Your task to perform on an android device: toggle notifications settings in the gmail app Image 0: 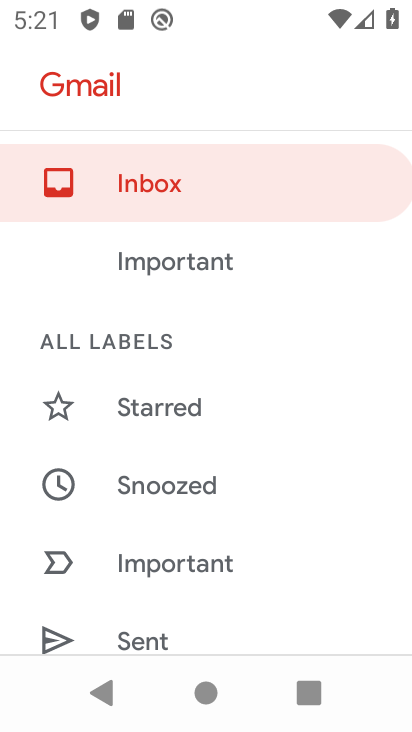
Step 0: press home button
Your task to perform on an android device: toggle notifications settings in the gmail app Image 1: 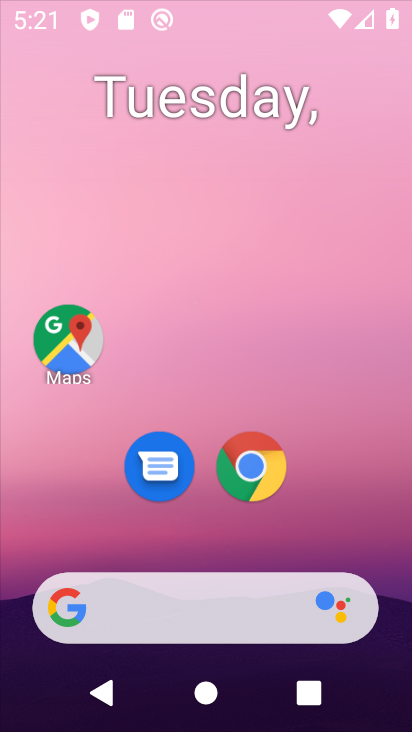
Step 1: drag from (388, 634) to (394, 57)
Your task to perform on an android device: toggle notifications settings in the gmail app Image 2: 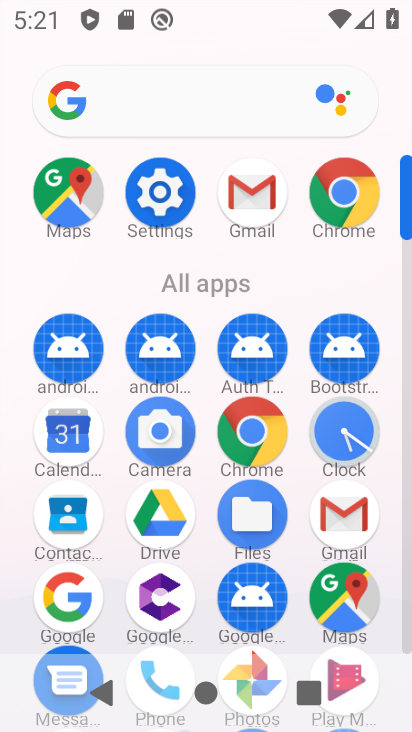
Step 2: click (336, 535)
Your task to perform on an android device: toggle notifications settings in the gmail app Image 3: 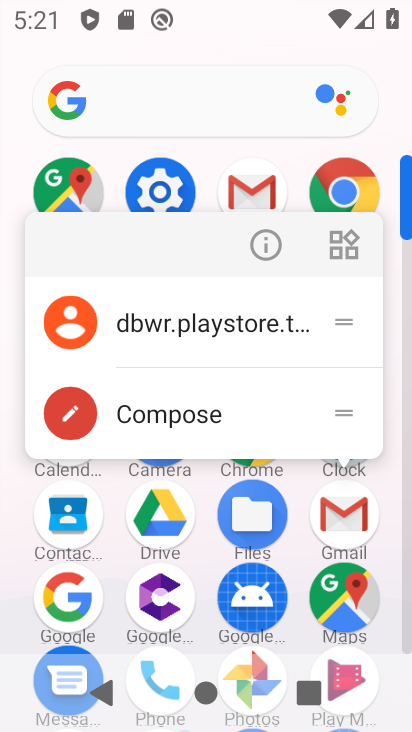
Step 3: click (260, 252)
Your task to perform on an android device: toggle notifications settings in the gmail app Image 4: 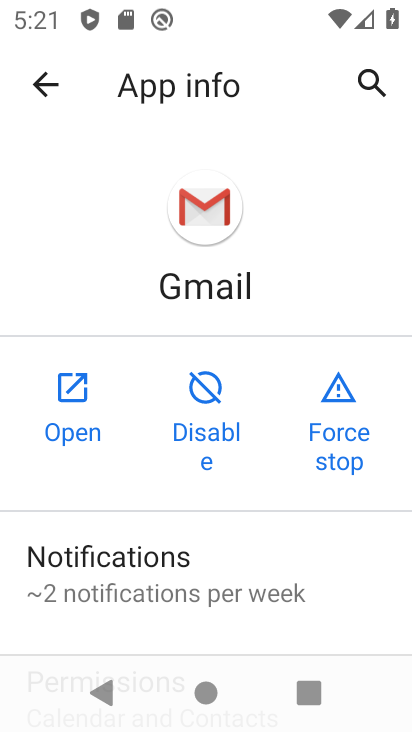
Step 4: click (134, 530)
Your task to perform on an android device: toggle notifications settings in the gmail app Image 5: 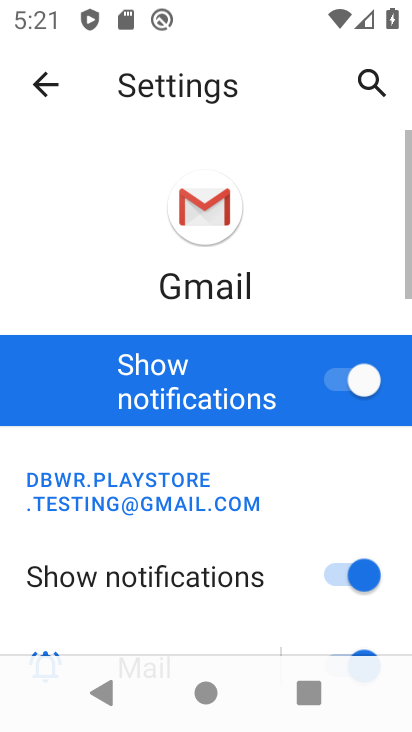
Step 5: click (238, 374)
Your task to perform on an android device: toggle notifications settings in the gmail app Image 6: 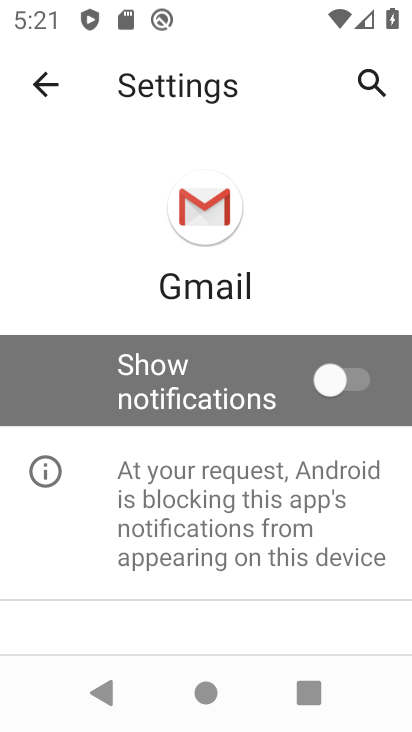
Step 6: task complete